Your task to perform on an android device: Open settings Image 0: 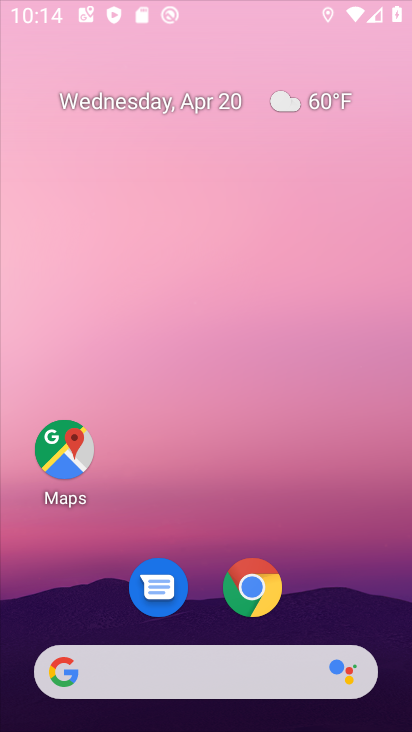
Step 0: drag from (275, 282) to (190, 81)
Your task to perform on an android device: Open settings Image 1: 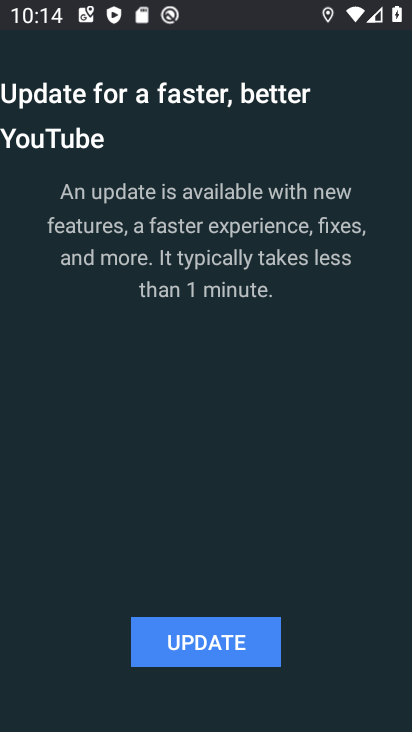
Step 1: press home button
Your task to perform on an android device: Open settings Image 2: 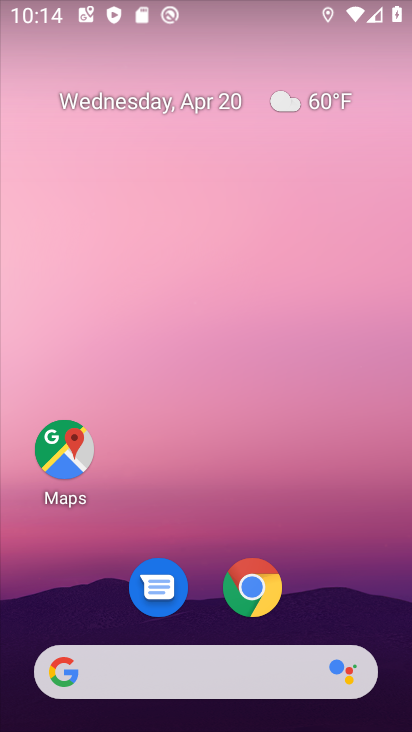
Step 2: drag from (367, 594) to (146, 138)
Your task to perform on an android device: Open settings Image 3: 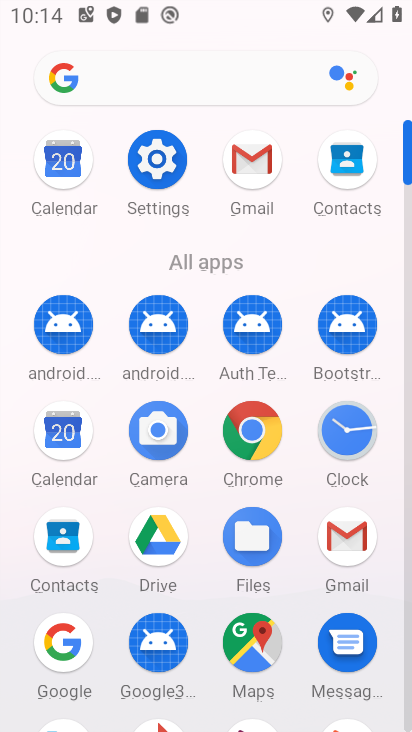
Step 3: click (166, 159)
Your task to perform on an android device: Open settings Image 4: 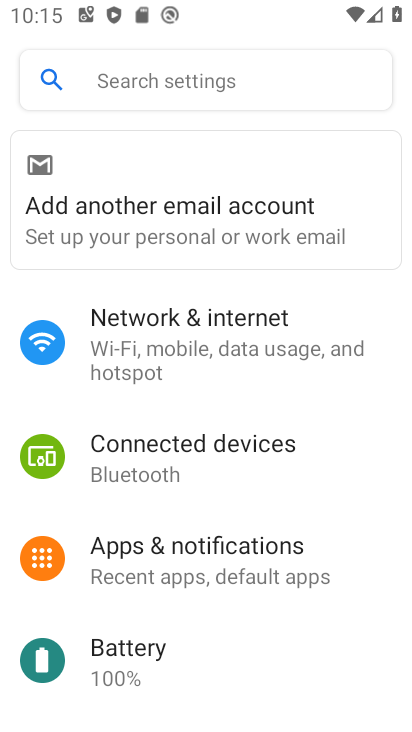
Step 4: task complete